Your task to perform on an android device: turn off picture-in-picture Image 0: 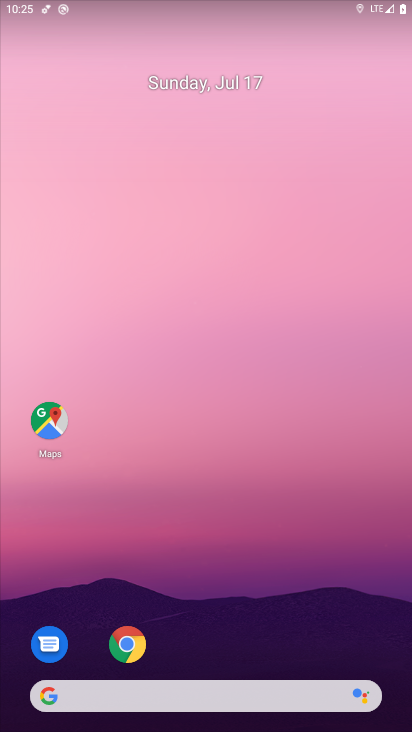
Step 0: press home button
Your task to perform on an android device: turn off picture-in-picture Image 1: 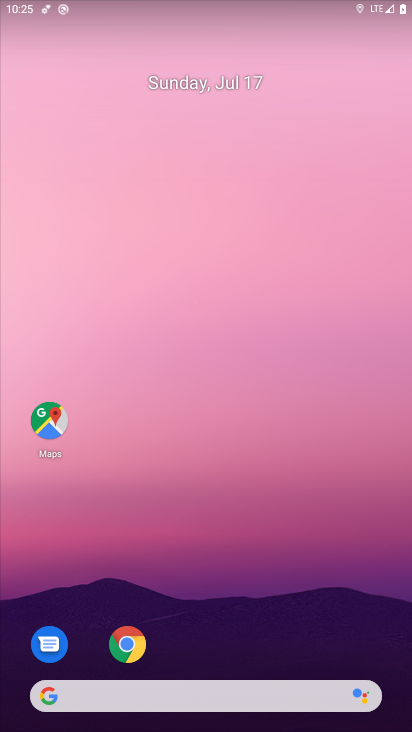
Step 1: click (126, 643)
Your task to perform on an android device: turn off picture-in-picture Image 2: 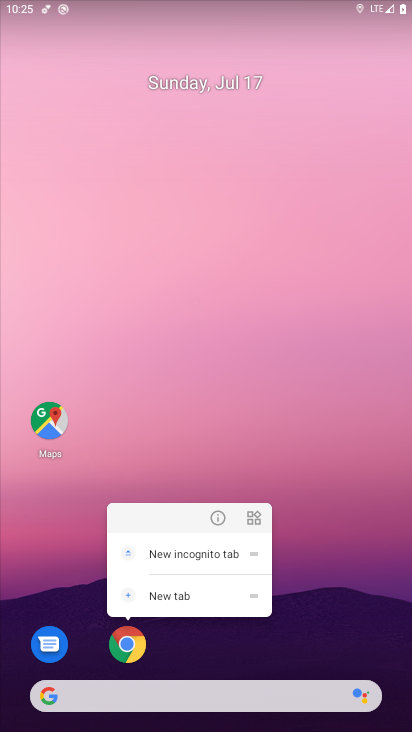
Step 2: click (219, 517)
Your task to perform on an android device: turn off picture-in-picture Image 3: 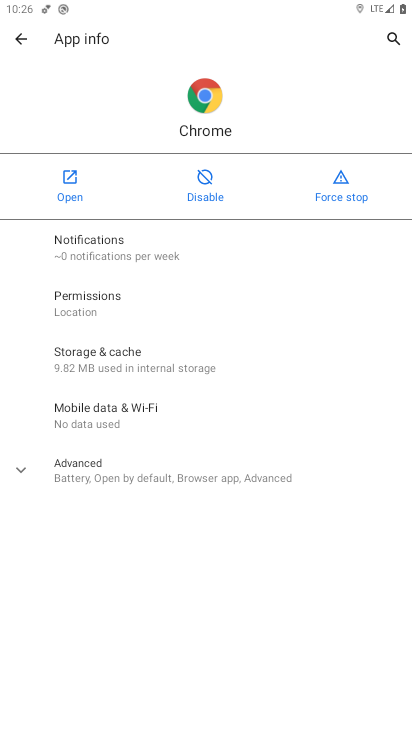
Step 3: click (76, 467)
Your task to perform on an android device: turn off picture-in-picture Image 4: 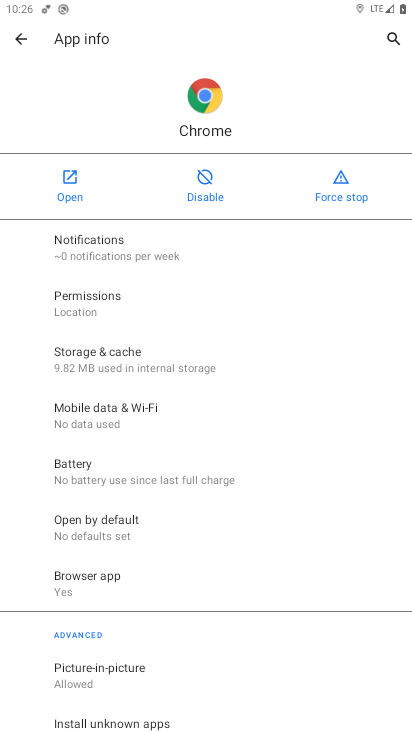
Step 4: click (69, 668)
Your task to perform on an android device: turn off picture-in-picture Image 5: 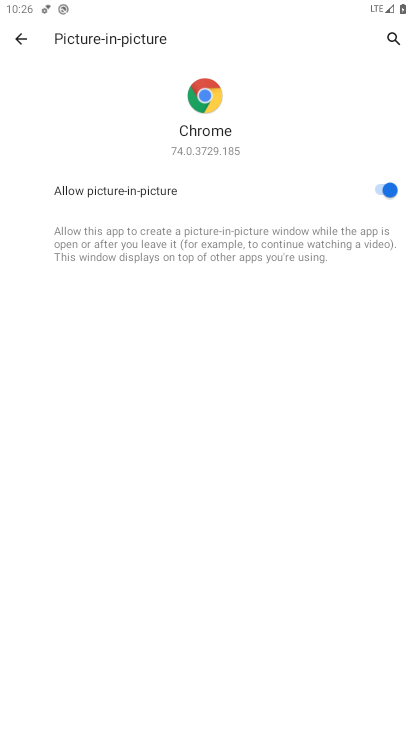
Step 5: click (395, 183)
Your task to perform on an android device: turn off picture-in-picture Image 6: 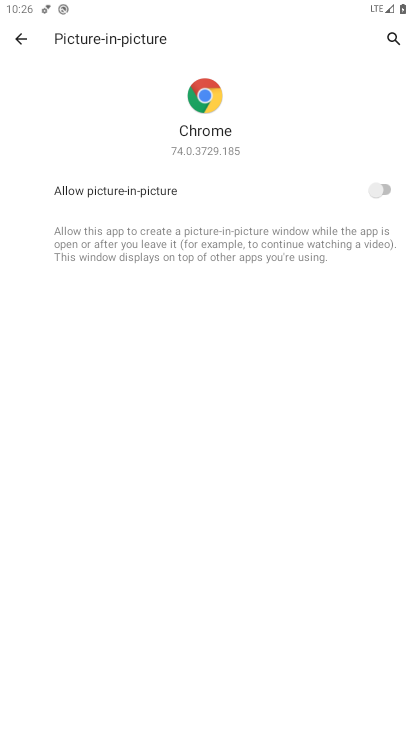
Step 6: task complete